Your task to perform on an android device: open chrome privacy settings Image 0: 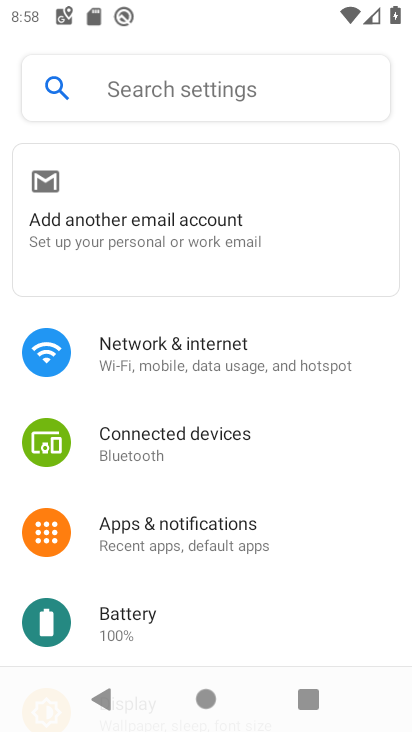
Step 0: press back button
Your task to perform on an android device: open chrome privacy settings Image 1: 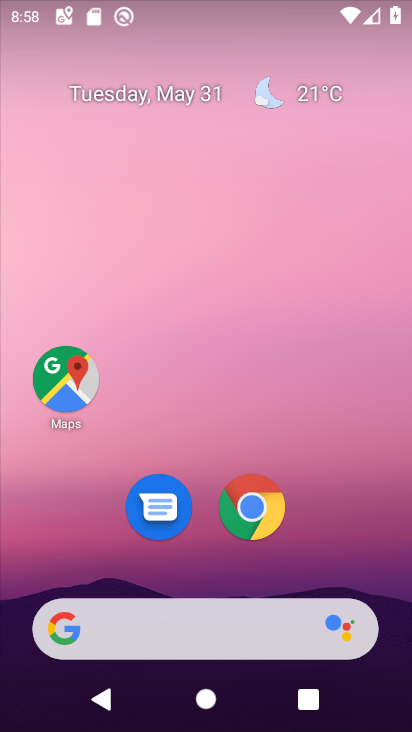
Step 1: drag from (248, 635) to (219, 189)
Your task to perform on an android device: open chrome privacy settings Image 2: 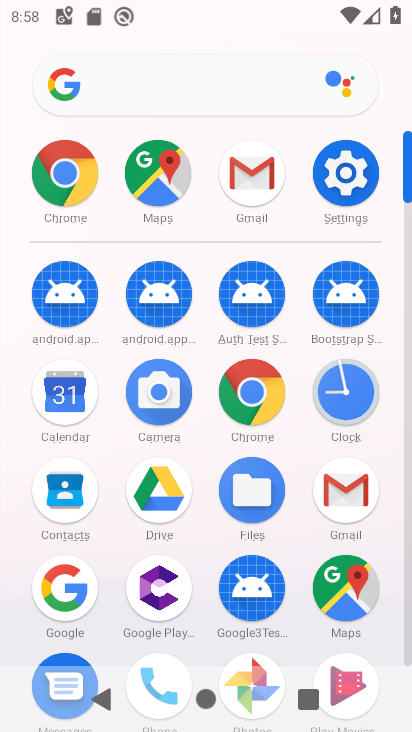
Step 2: click (349, 170)
Your task to perform on an android device: open chrome privacy settings Image 3: 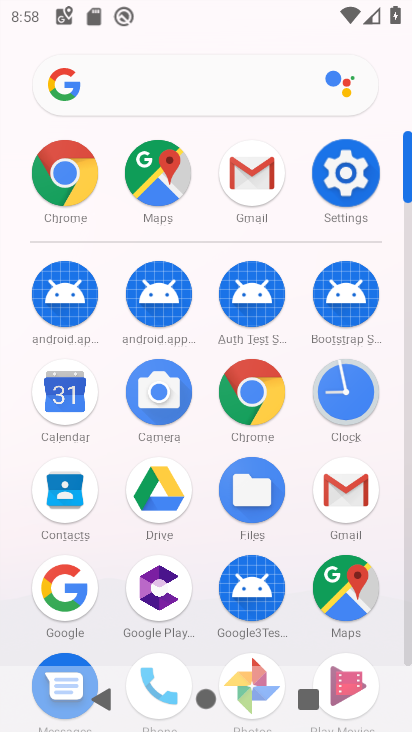
Step 3: click (349, 171)
Your task to perform on an android device: open chrome privacy settings Image 4: 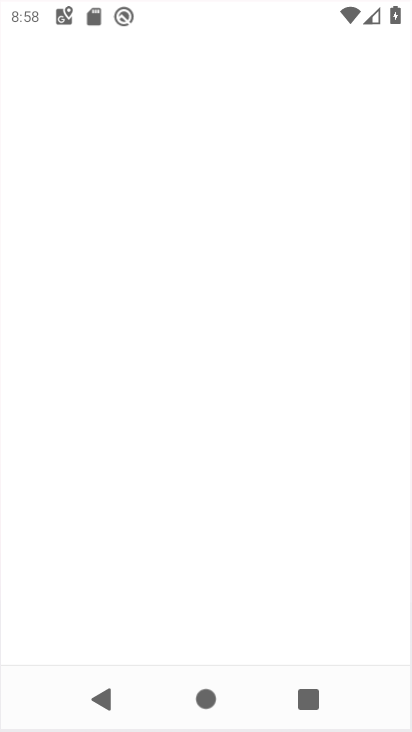
Step 4: click (340, 171)
Your task to perform on an android device: open chrome privacy settings Image 5: 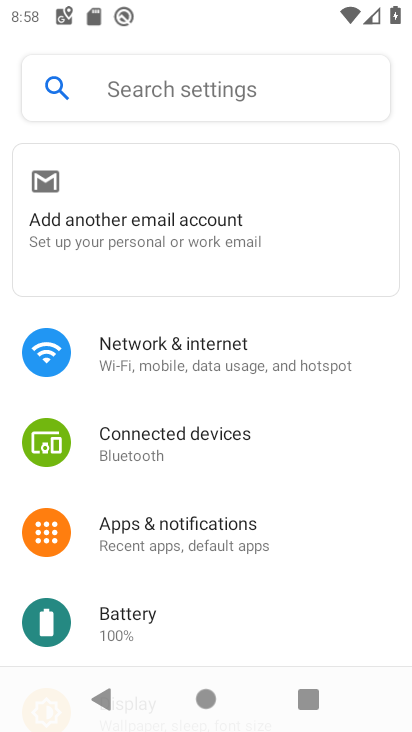
Step 5: press back button
Your task to perform on an android device: open chrome privacy settings Image 6: 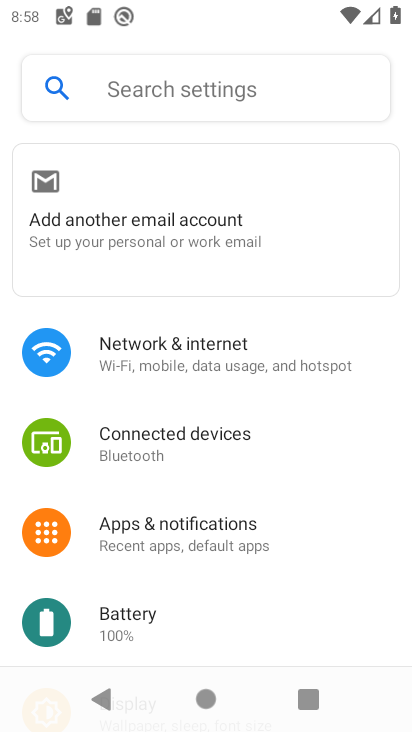
Step 6: press back button
Your task to perform on an android device: open chrome privacy settings Image 7: 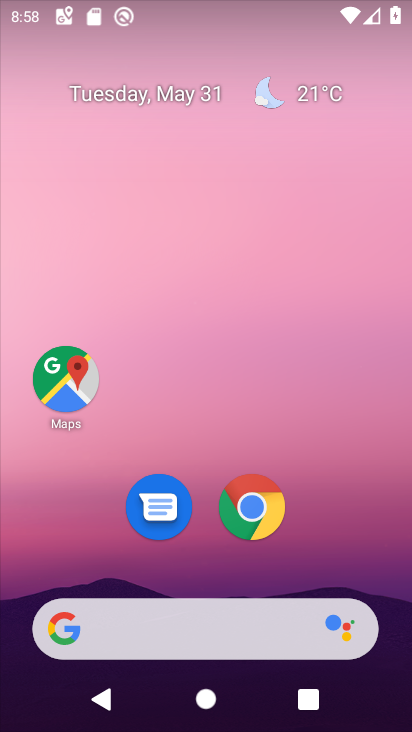
Step 7: drag from (225, 694) to (271, 152)
Your task to perform on an android device: open chrome privacy settings Image 8: 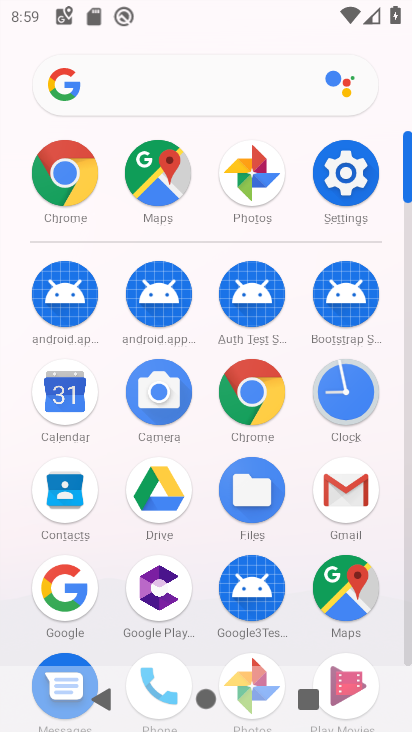
Step 8: click (68, 180)
Your task to perform on an android device: open chrome privacy settings Image 9: 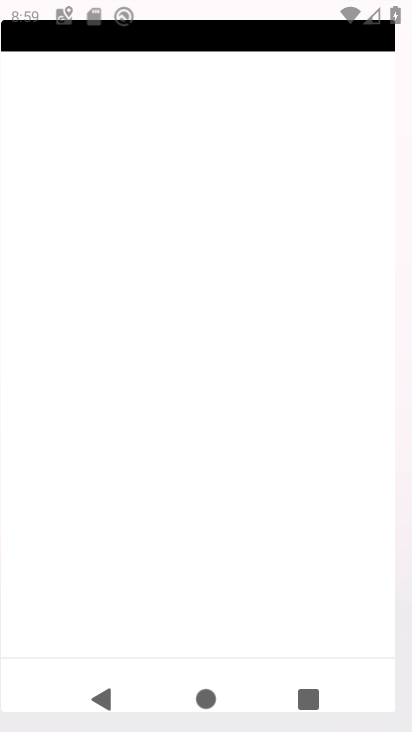
Step 9: click (68, 180)
Your task to perform on an android device: open chrome privacy settings Image 10: 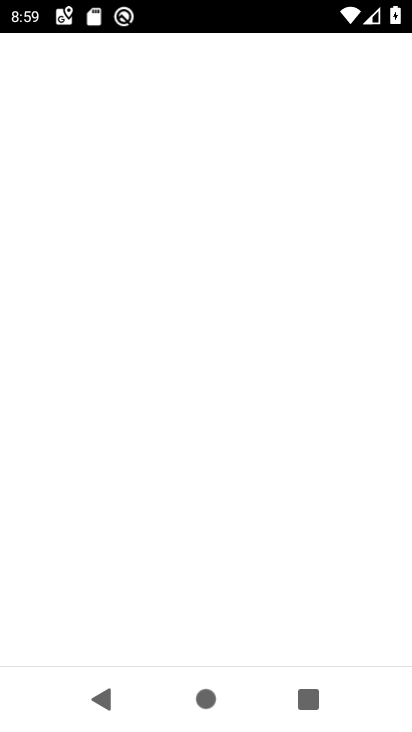
Step 10: click (67, 180)
Your task to perform on an android device: open chrome privacy settings Image 11: 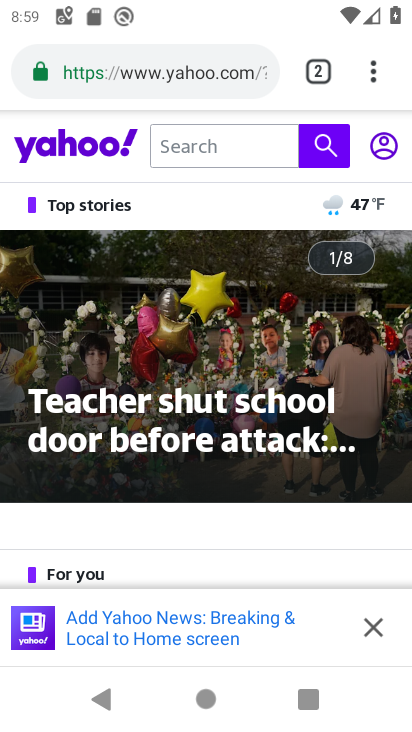
Step 11: drag from (374, 79) to (114, 502)
Your task to perform on an android device: open chrome privacy settings Image 12: 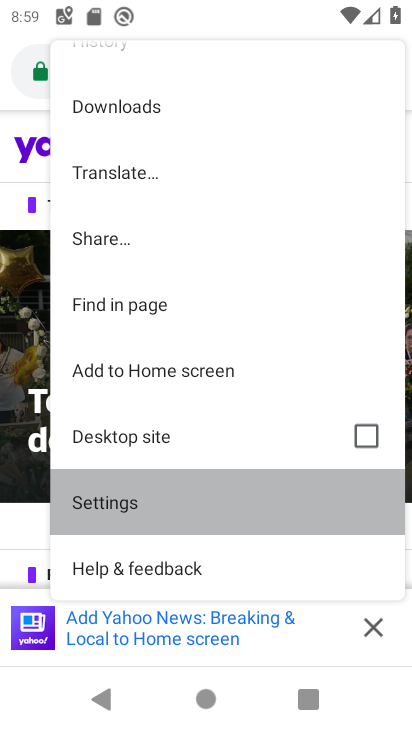
Step 12: click (126, 516)
Your task to perform on an android device: open chrome privacy settings Image 13: 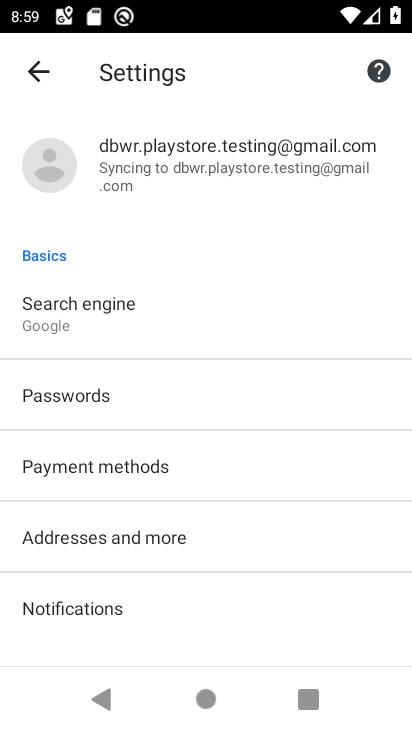
Step 13: drag from (144, 550) to (82, 212)
Your task to perform on an android device: open chrome privacy settings Image 14: 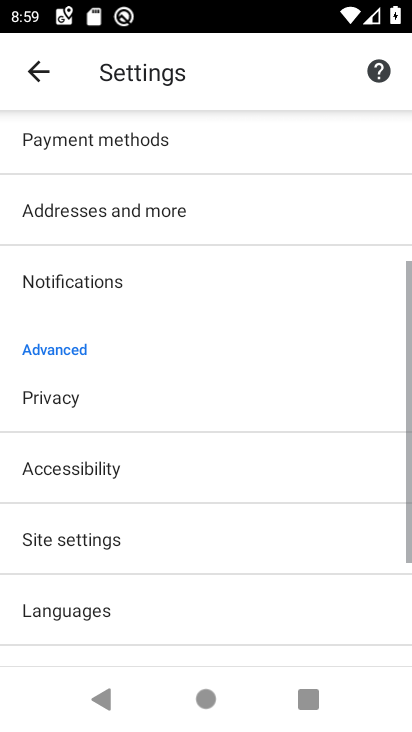
Step 14: drag from (167, 553) to (138, 113)
Your task to perform on an android device: open chrome privacy settings Image 15: 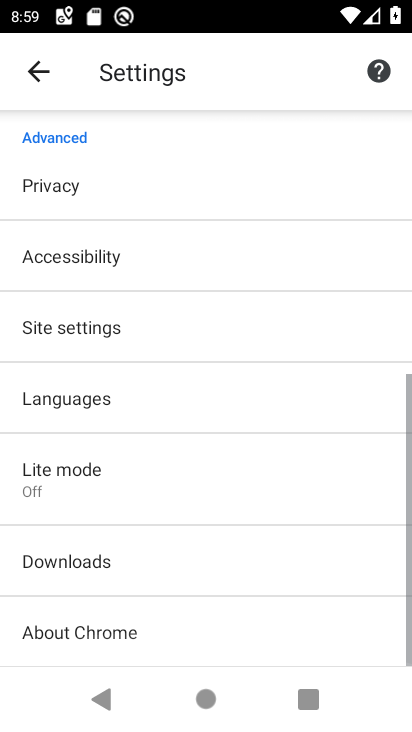
Step 15: drag from (170, 357) to (144, 38)
Your task to perform on an android device: open chrome privacy settings Image 16: 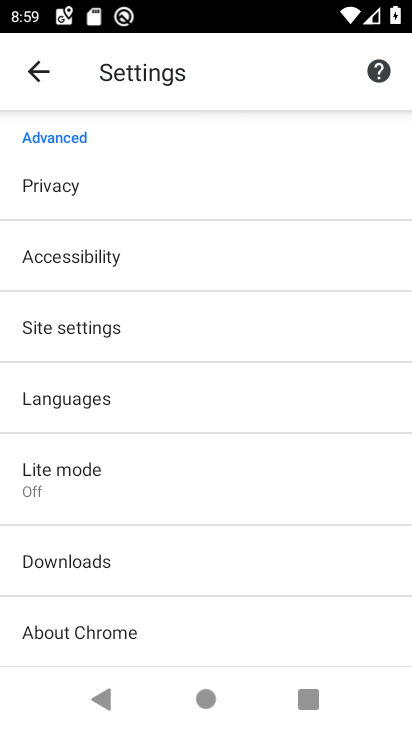
Step 16: click (38, 192)
Your task to perform on an android device: open chrome privacy settings Image 17: 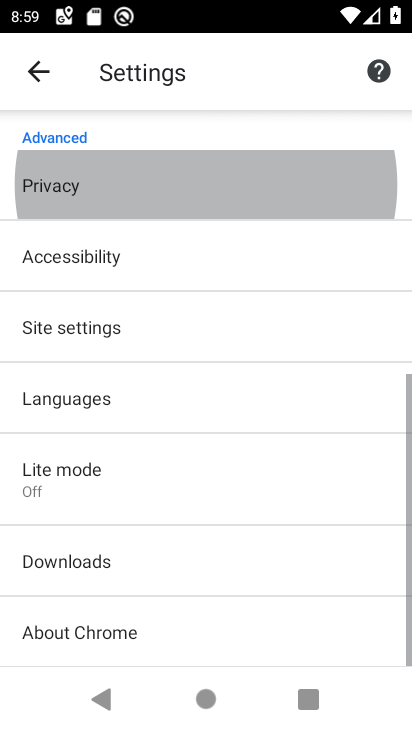
Step 17: click (39, 188)
Your task to perform on an android device: open chrome privacy settings Image 18: 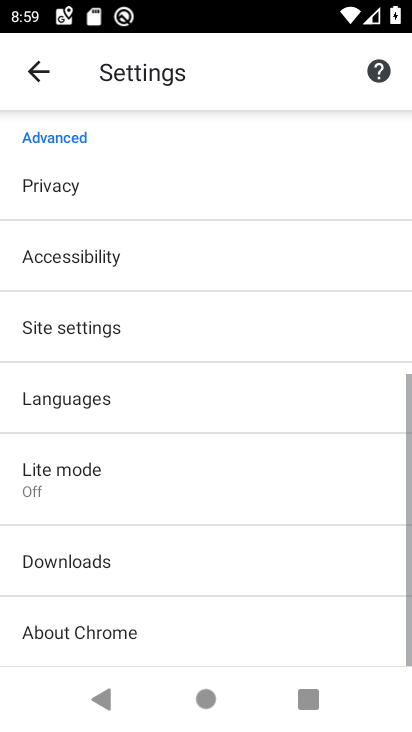
Step 18: click (39, 188)
Your task to perform on an android device: open chrome privacy settings Image 19: 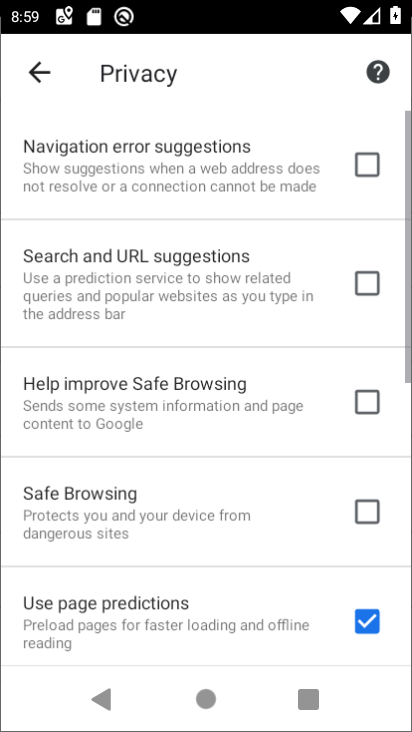
Step 19: click (39, 187)
Your task to perform on an android device: open chrome privacy settings Image 20: 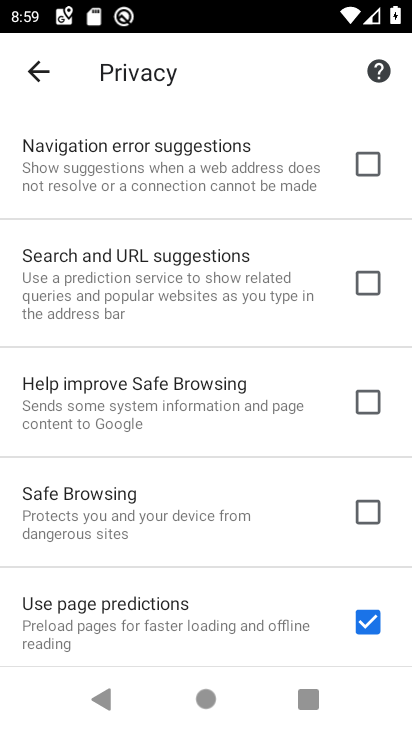
Step 20: click (374, 172)
Your task to perform on an android device: open chrome privacy settings Image 21: 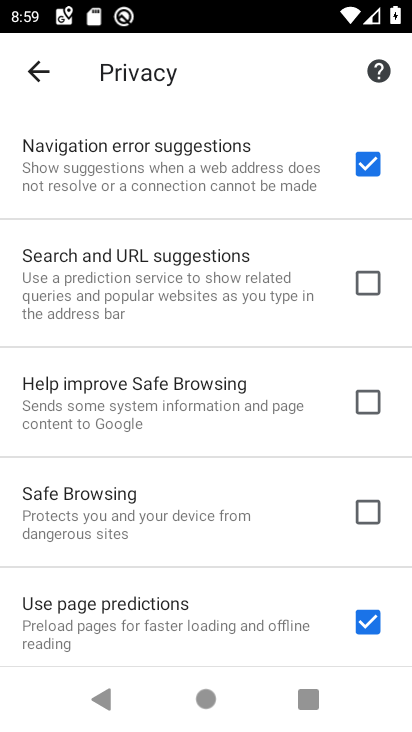
Step 21: task complete